Your task to perform on an android device: Open Google Maps and go to "Timeline" Image 0: 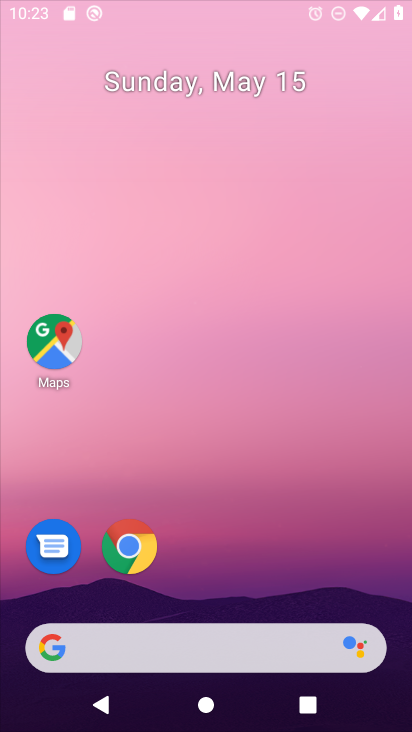
Step 0: click (337, 137)
Your task to perform on an android device: Open Google Maps and go to "Timeline" Image 1: 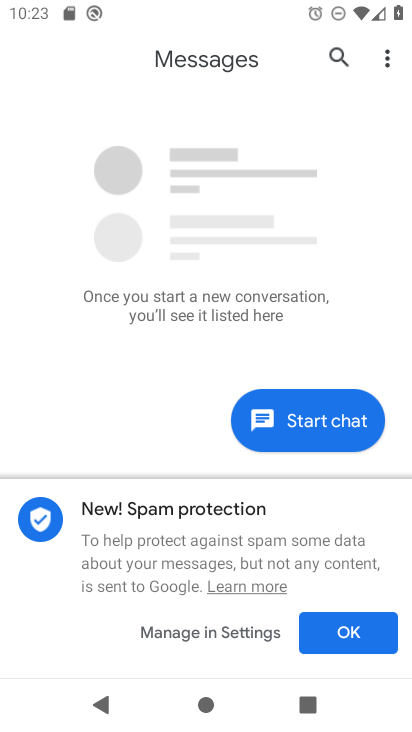
Step 1: press home button
Your task to perform on an android device: Open Google Maps and go to "Timeline" Image 2: 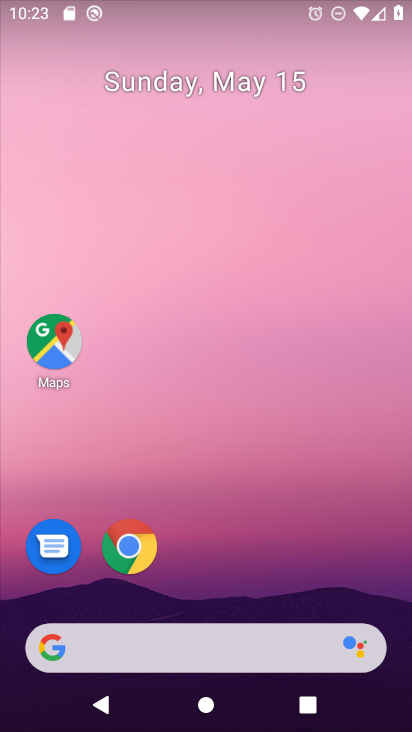
Step 2: drag from (290, 563) to (379, 180)
Your task to perform on an android device: Open Google Maps and go to "Timeline" Image 3: 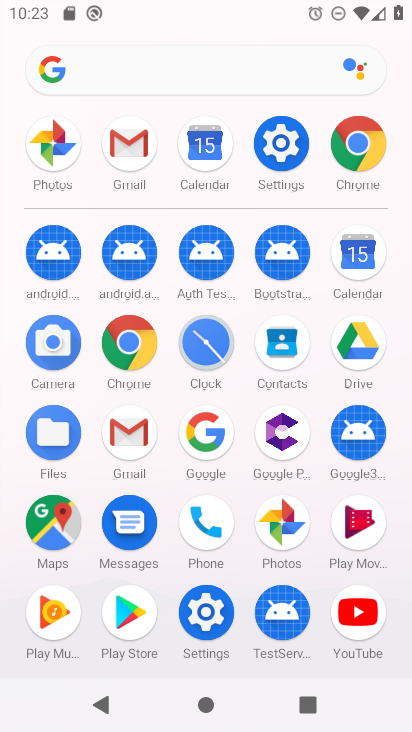
Step 3: click (282, 142)
Your task to perform on an android device: Open Google Maps and go to "Timeline" Image 4: 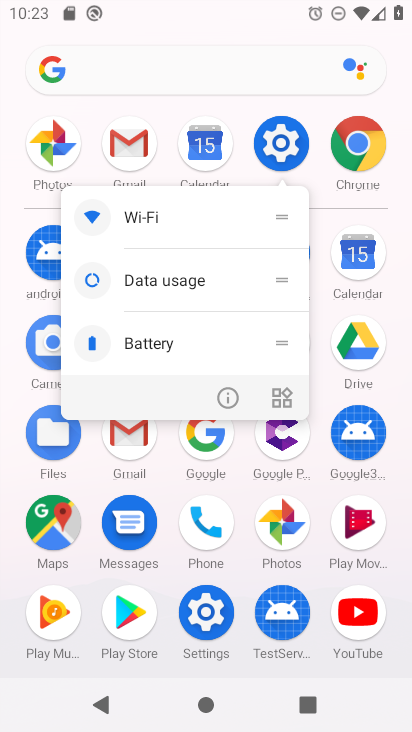
Step 4: click (50, 530)
Your task to perform on an android device: Open Google Maps and go to "Timeline" Image 5: 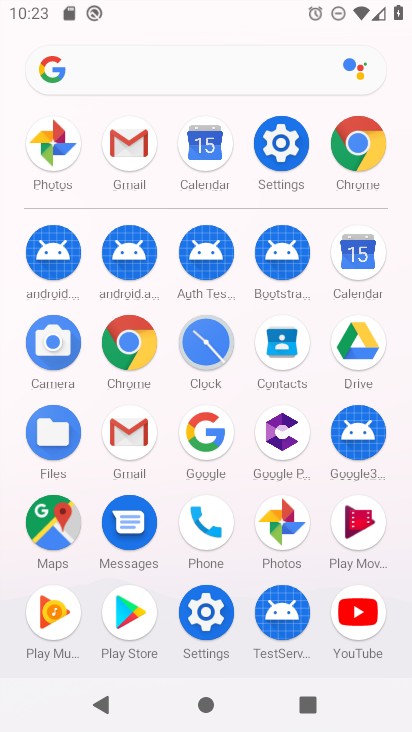
Step 5: click (50, 521)
Your task to perform on an android device: Open Google Maps and go to "Timeline" Image 6: 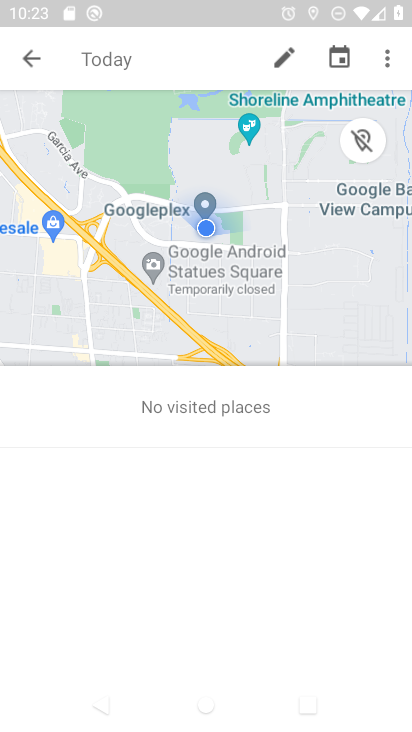
Step 6: task complete